Your task to perform on an android device: change the clock display to digital Image 0: 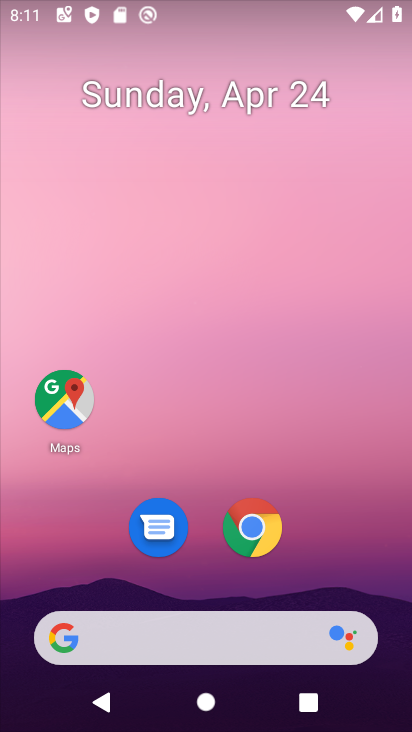
Step 0: drag from (370, 508) to (219, 49)
Your task to perform on an android device: change the clock display to digital Image 1: 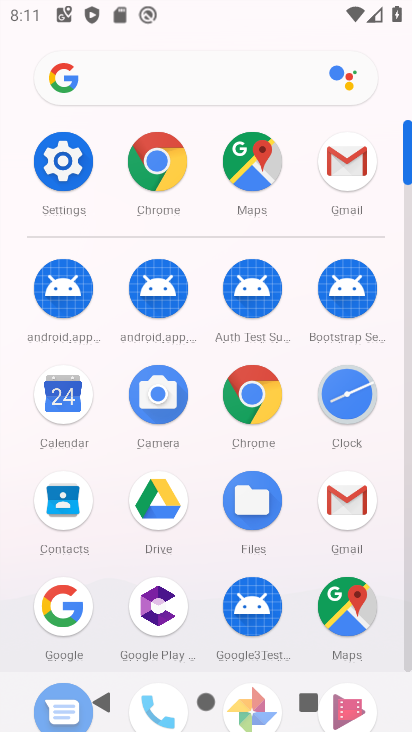
Step 1: click (357, 387)
Your task to perform on an android device: change the clock display to digital Image 2: 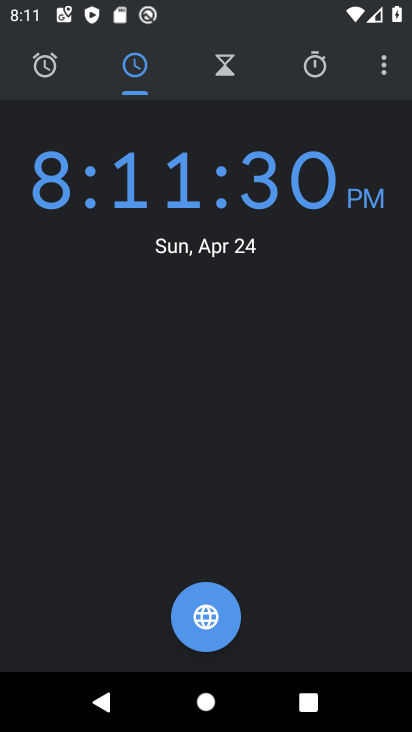
Step 2: click (388, 70)
Your task to perform on an android device: change the clock display to digital Image 3: 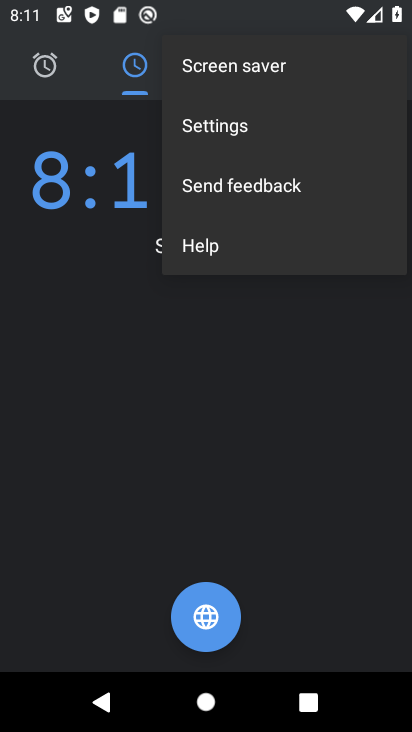
Step 3: click (249, 110)
Your task to perform on an android device: change the clock display to digital Image 4: 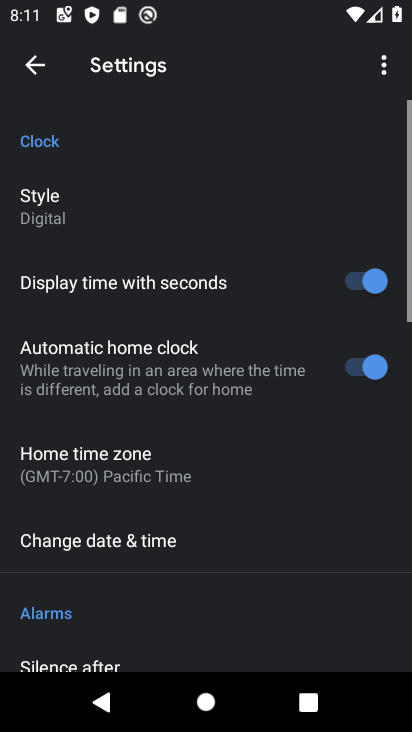
Step 4: click (126, 194)
Your task to perform on an android device: change the clock display to digital Image 5: 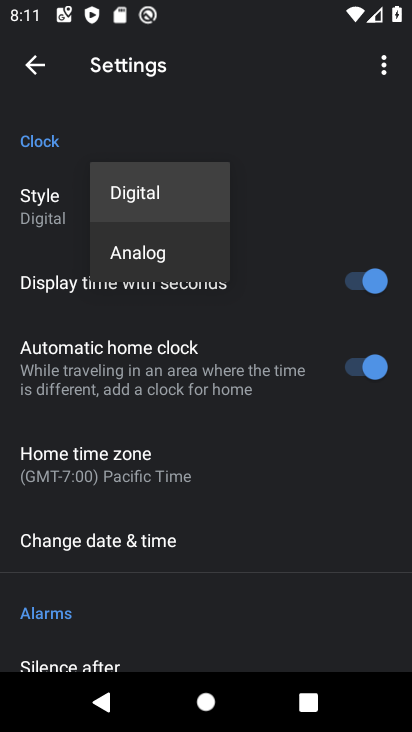
Step 5: click (126, 194)
Your task to perform on an android device: change the clock display to digital Image 6: 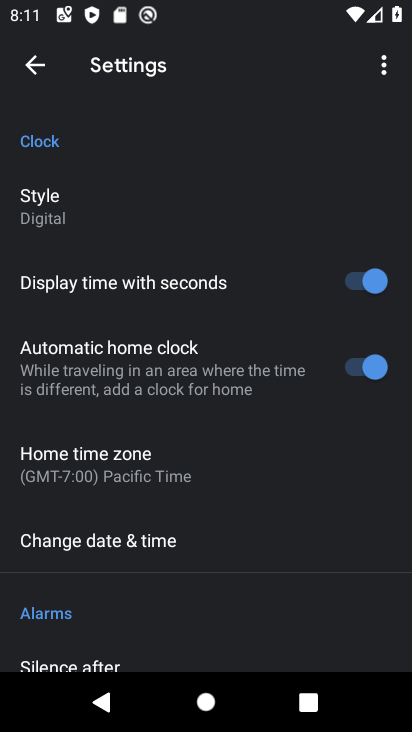
Step 6: task complete